Your task to perform on an android device: delete a single message in the gmail app Image 0: 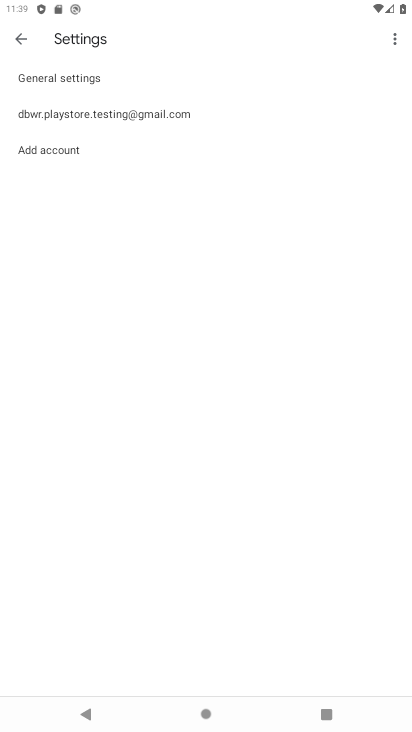
Step 0: press back button
Your task to perform on an android device: delete a single message in the gmail app Image 1: 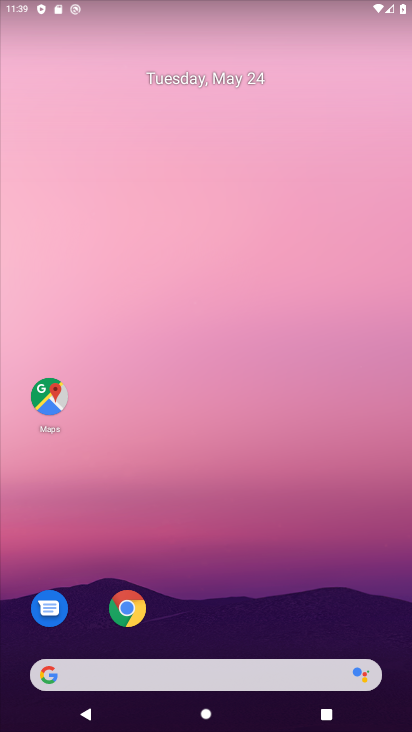
Step 1: drag from (161, 642) to (202, 140)
Your task to perform on an android device: delete a single message in the gmail app Image 2: 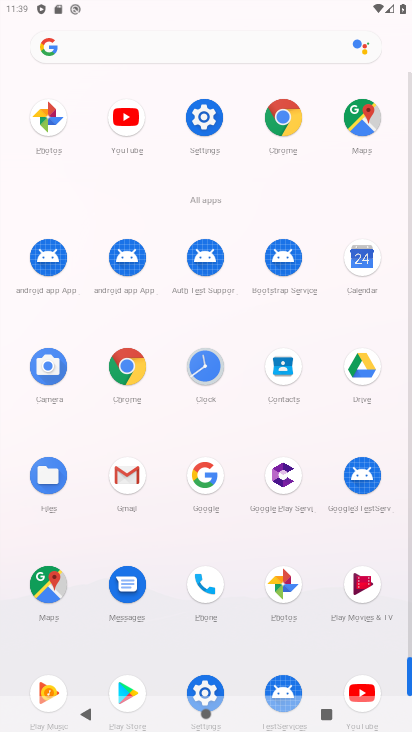
Step 2: click (135, 485)
Your task to perform on an android device: delete a single message in the gmail app Image 3: 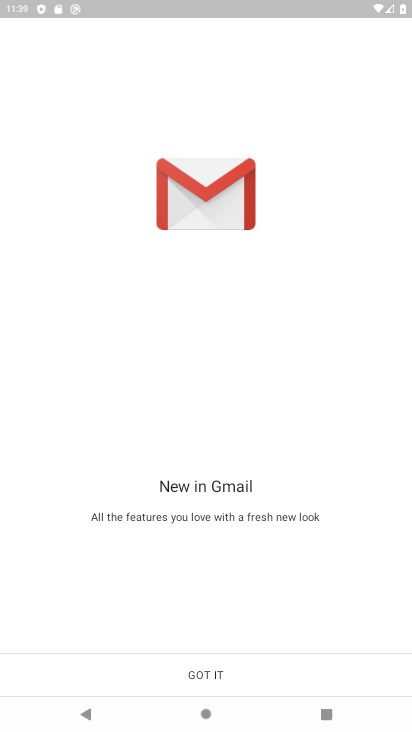
Step 3: click (197, 692)
Your task to perform on an android device: delete a single message in the gmail app Image 4: 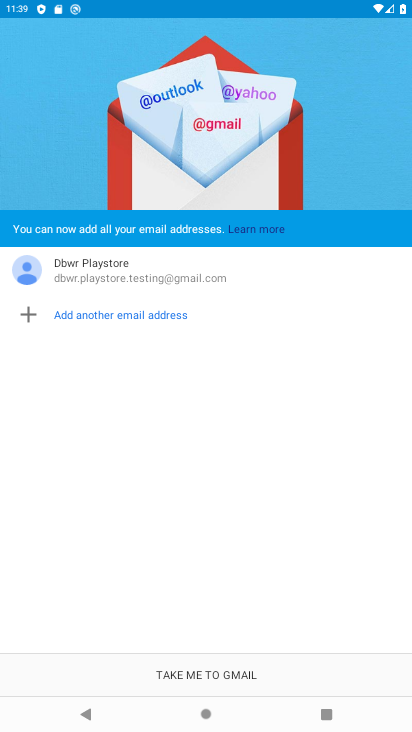
Step 4: click (209, 680)
Your task to perform on an android device: delete a single message in the gmail app Image 5: 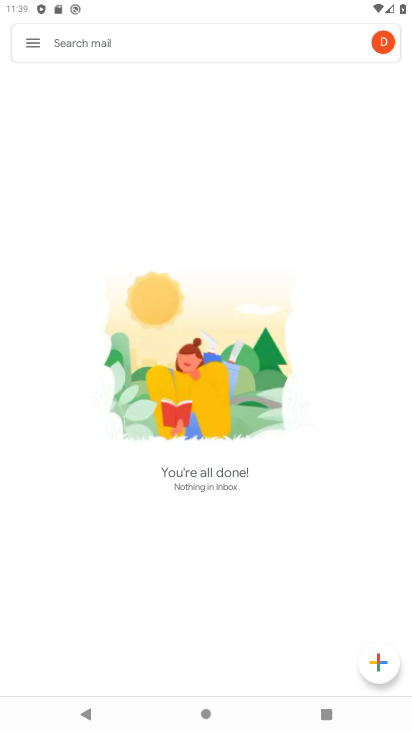
Step 5: click (54, 55)
Your task to perform on an android device: delete a single message in the gmail app Image 6: 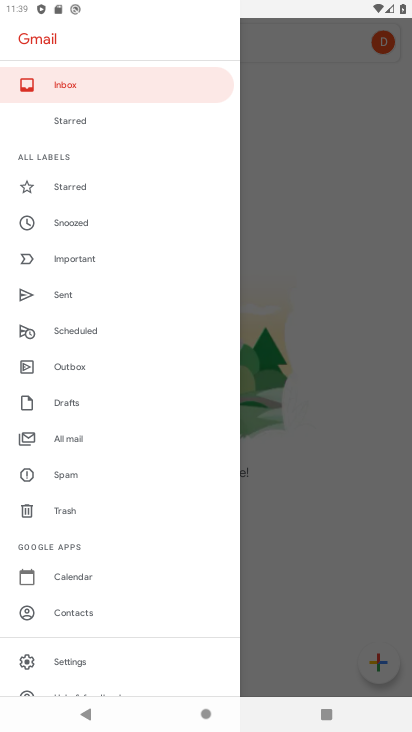
Step 6: click (88, 429)
Your task to perform on an android device: delete a single message in the gmail app Image 7: 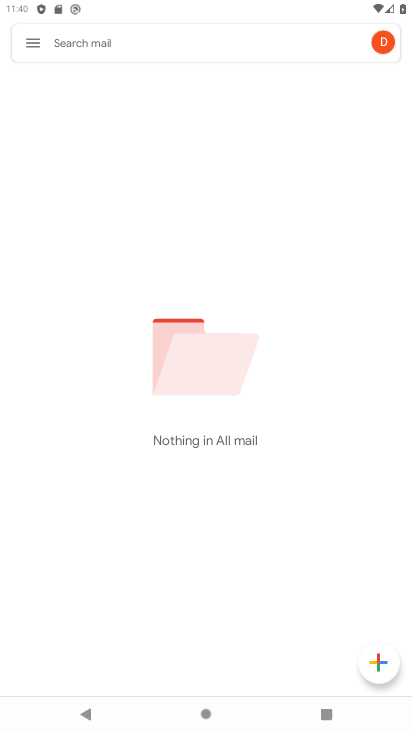
Step 7: task complete